Your task to perform on an android device: When is my next appointment? Image 0: 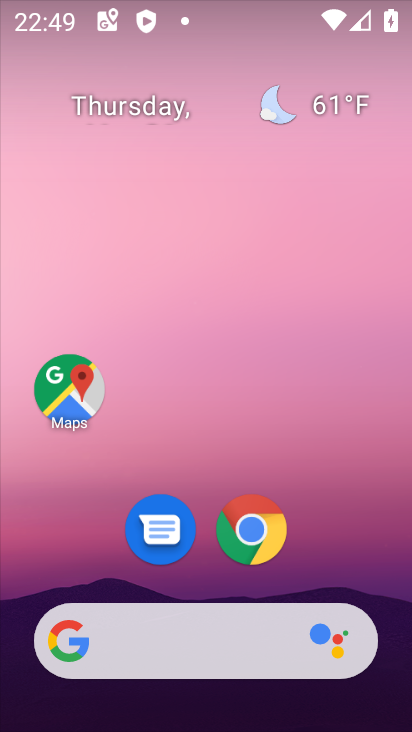
Step 0: drag from (378, 539) to (310, 0)
Your task to perform on an android device: When is my next appointment? Image 1: 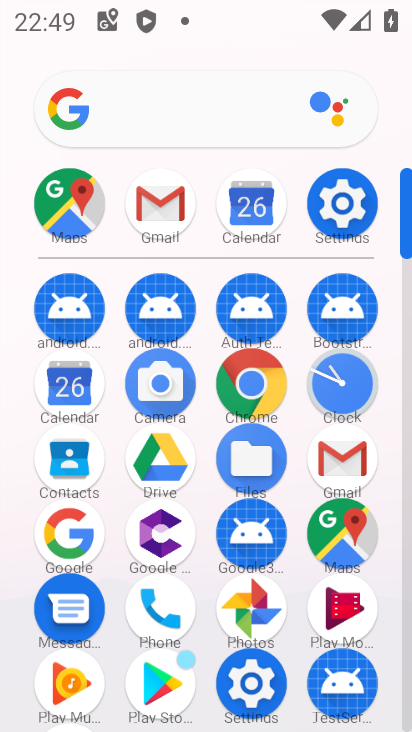
Step 1: click (261, 223)
Your task to perform on an android device: When is my next appointment? Image 2: 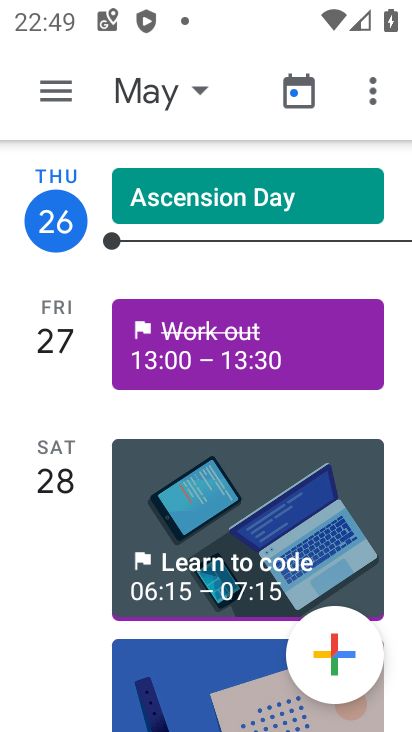
Step 2: task complete